Your task to perform on an android device: Open Google Image 0: 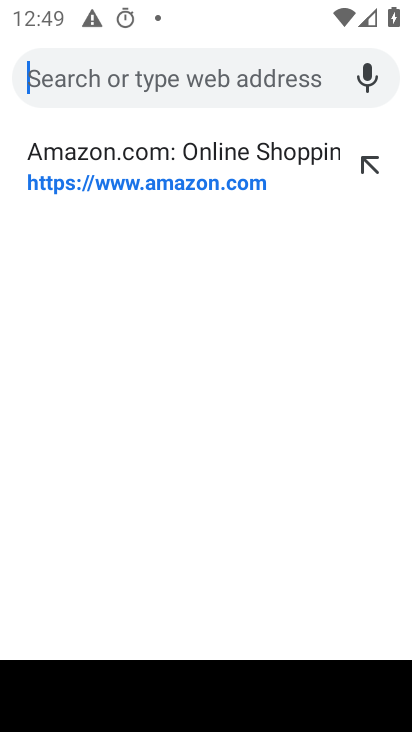
Step 0: press home button
Your task to perform on an android device: Open Google Image 1: 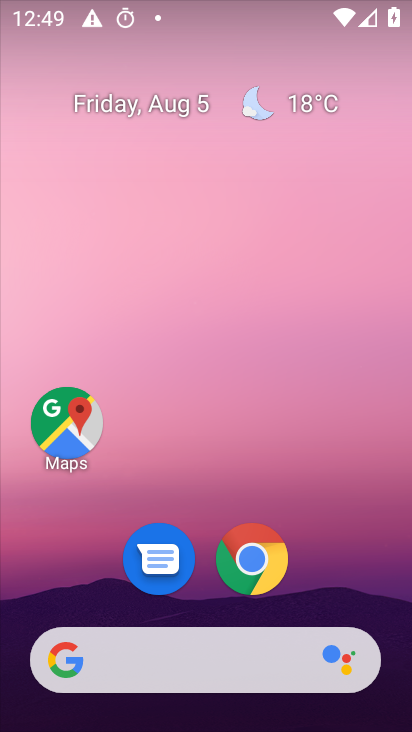
Step 1: click (146, 656)
Your task to perform on an android device: Open Google Image 2: 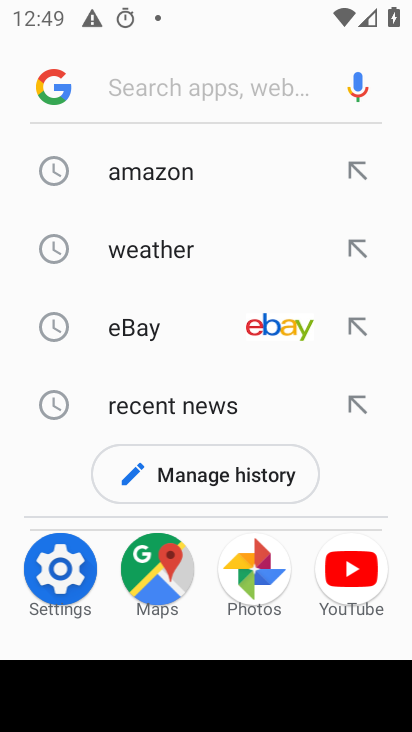
Step 2: task complete